Your task to perform on an android device: Set the phone to "Do not disturb". Image 0: 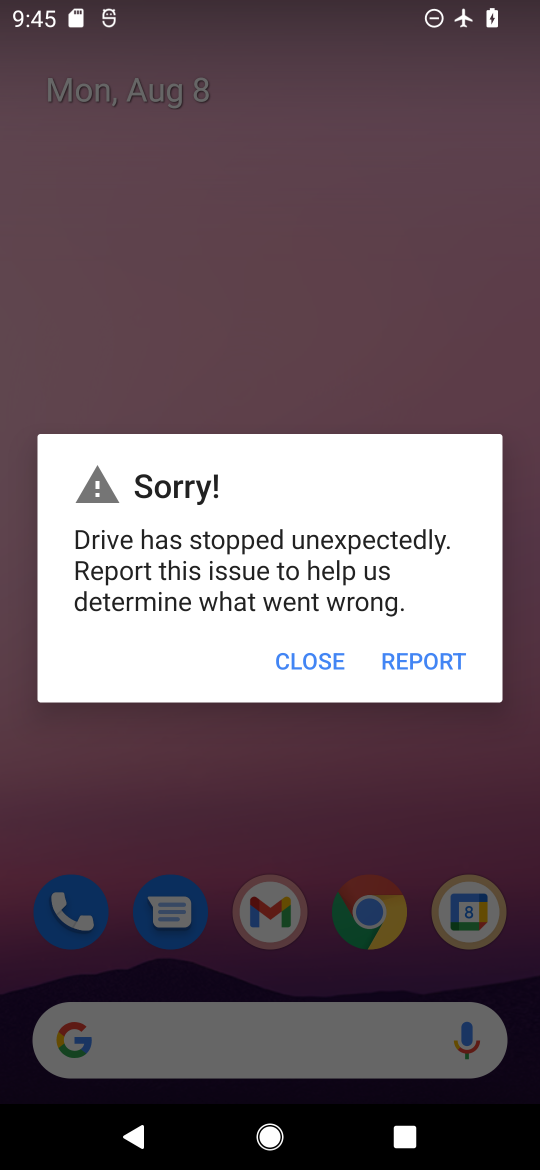
Step 0: click (312, 652)
Your task to perform on an android device: Set the phone to "Do not disturb". Image 1: 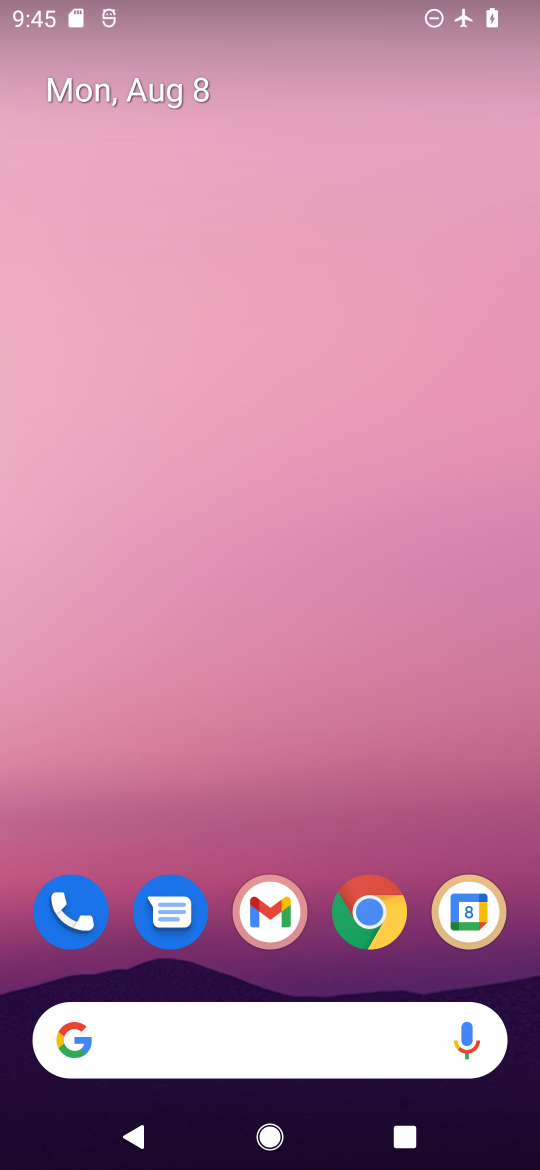
Step 1: task complete